Your task to perform on an android device: open app "HBO Max: Stream TV & Movies" (install if not already installed) and enter user name: "faring@outlook.com" and password: "appropriately" Image 0: 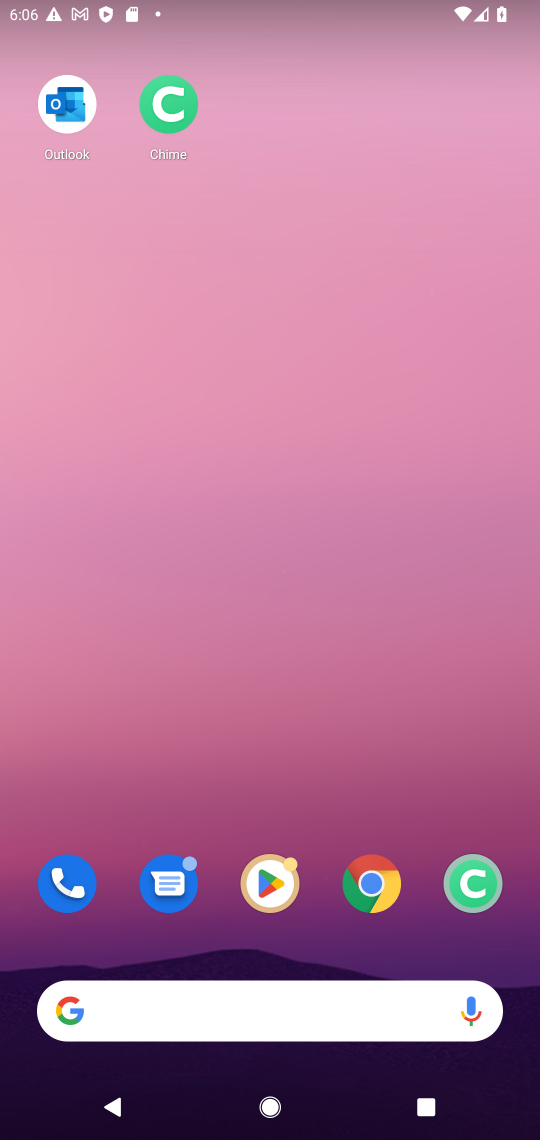
Step 0: click (264, 872)
Your task to perform on an android device: open app "HBO Max: Stream TV & Movies" (install if not already installed) and enter user name: "faring@outlook.com" and password: "appropriately" Image 1: 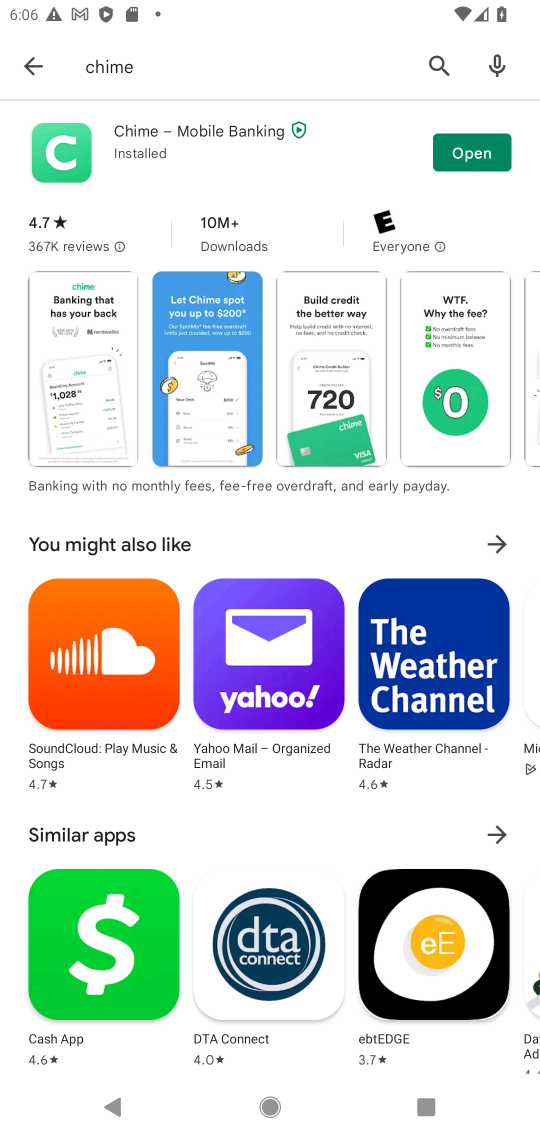
Step 1: click (438, 66)
Your task to perform on an android device: open app "HBO Max: Stream TV & Movies" (install if not already installed) and enter user name: "faring@outlook.com" and password: "appropriately" Image 2: 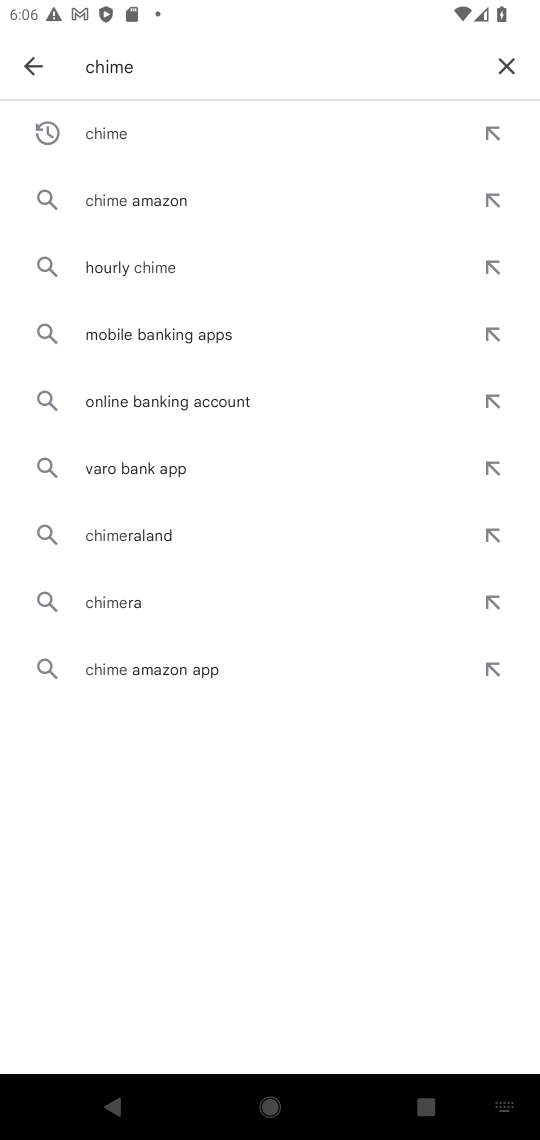
Step 2: click (499, 67)
Your task to perform on an android device: open app "HBO Max: Stream TV & Movies" (install if not already installed) and enter user name: "faring@outlook.com" and password: "appropriately" Image 3: 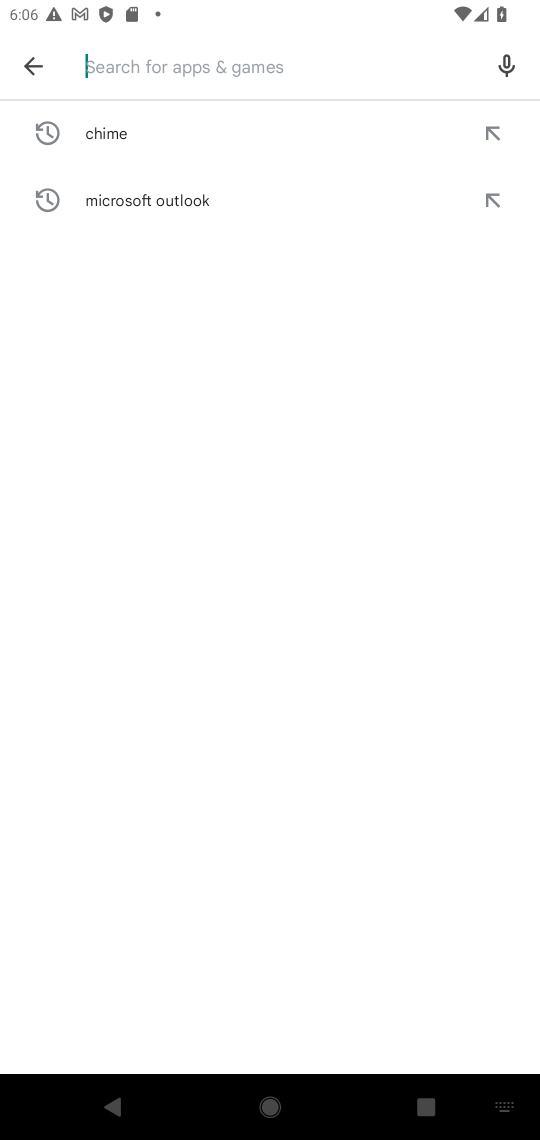
Step 3: type "HBO Max: Stream TV & Movies"
Your task to perform on an android device: open app "HBO Max: Stream TV & Movies" (install if not already installed) and enter user name: "faring@outlook.com" and password: "appropriately" Image 4: 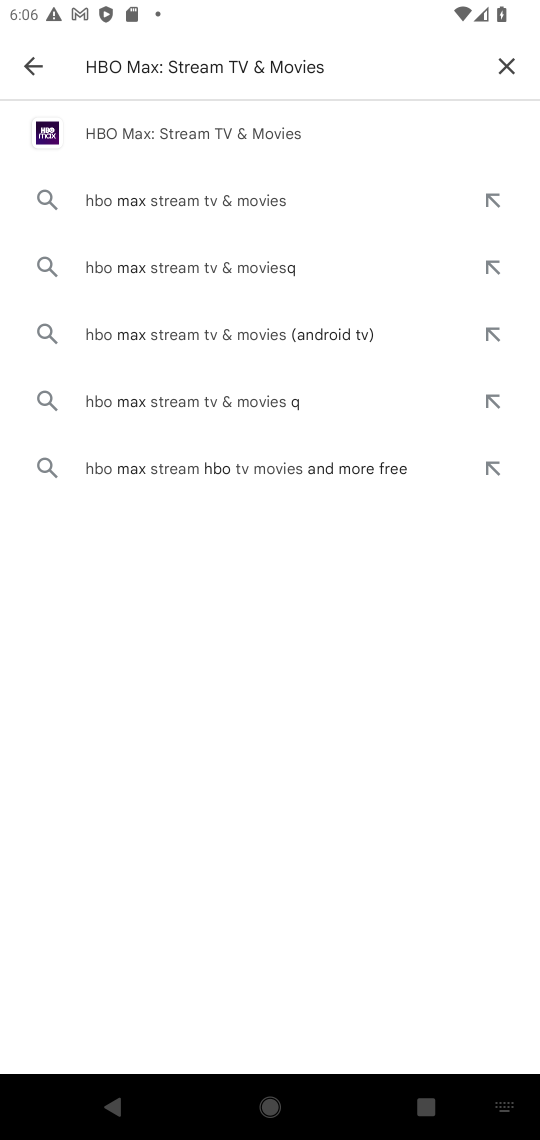
Step 4: click (223, 143)
Your task to perform on an android device: open app "HBO Max: Stream TV & Movies" (install if not already installed) and enter user name: "faring@outlook.com" and password: "appropriately" Image 5: 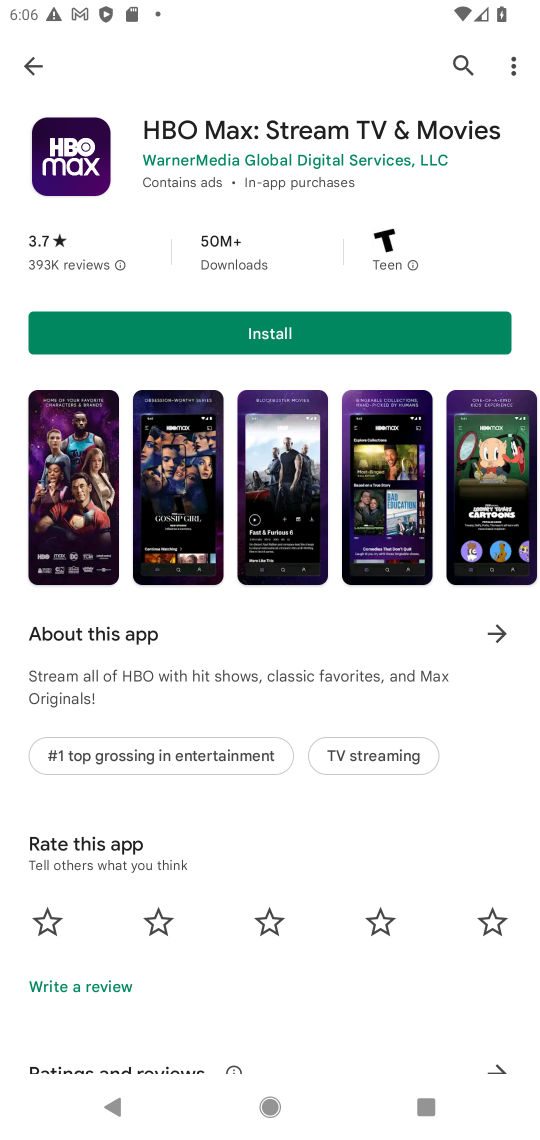
Step 5: click (298, 339)
Your task to perform on an android device: open app "HBO Max: Stream TV & Movies" (install if not already installed) and enter user name: "faring@outlook.com" and password: "appropriately" Image 6: 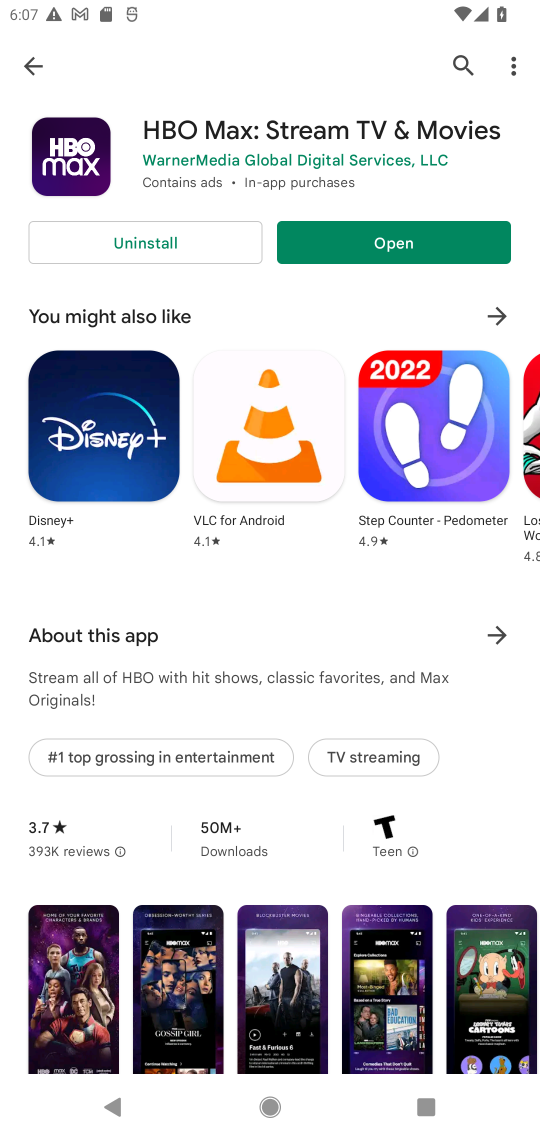
Step 6: click (398, 245)
Your task to perform on an android device: open app "HBO Max: Stream TV & Movies" (install if not already installed) and enter user name: "faring@outlook.com" and password: "appropriately" Image 7: 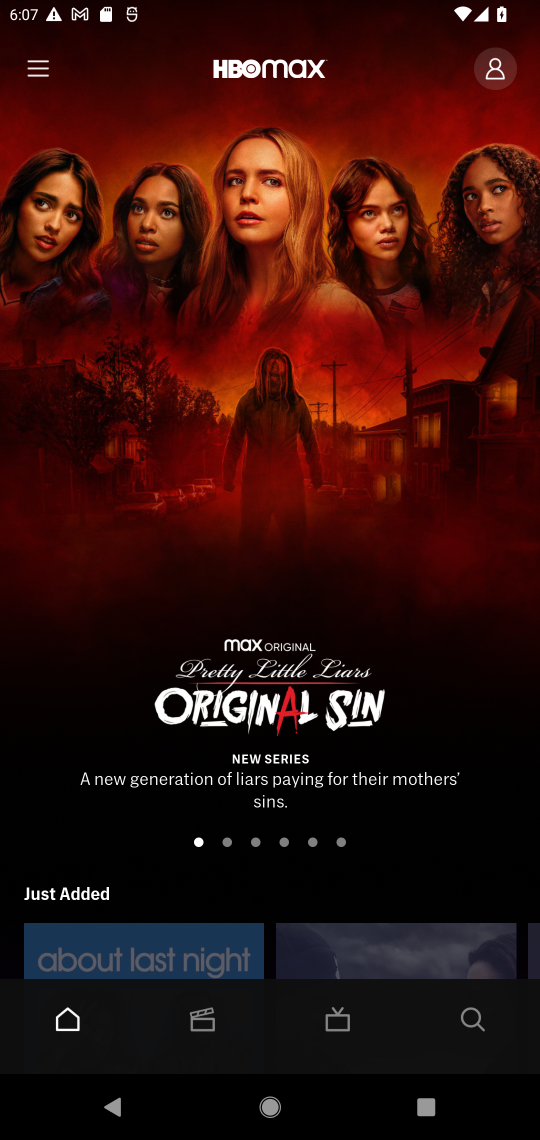
Step 7: task complete